Your task to perform on an android device: Go to sound settings Image 0: 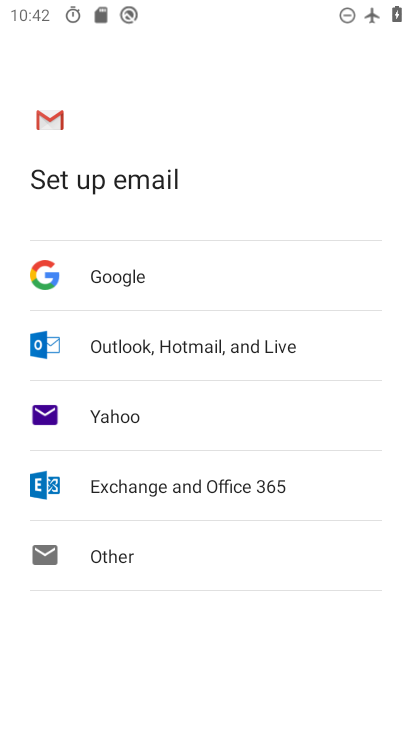
Step 0: press home button
Your task to perform on an android device: Go to sound settings Image 1: 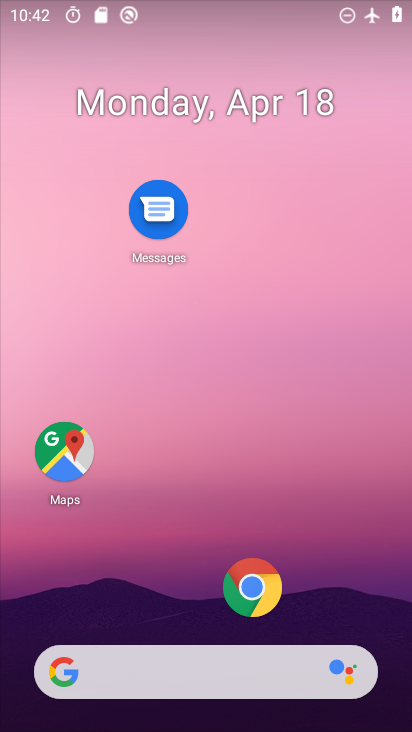
Step 1: drag from (180, 571) to (253, 107)
Your task to perform on an android device: Go to sound settings Image 2: 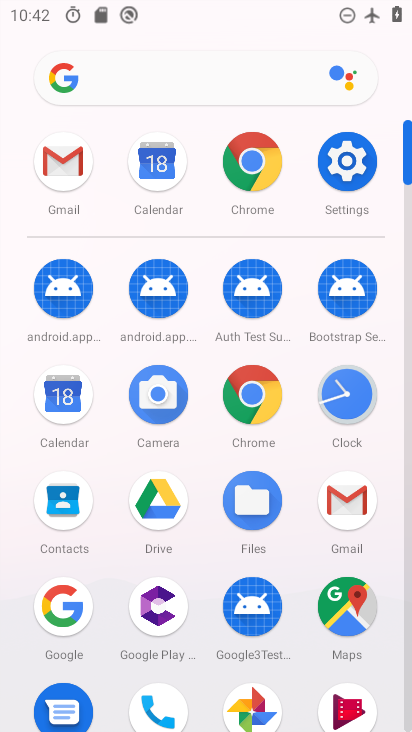
Step 2: click (364, 166)
Your task to perform on an android device: Go to sound settings Image 3: 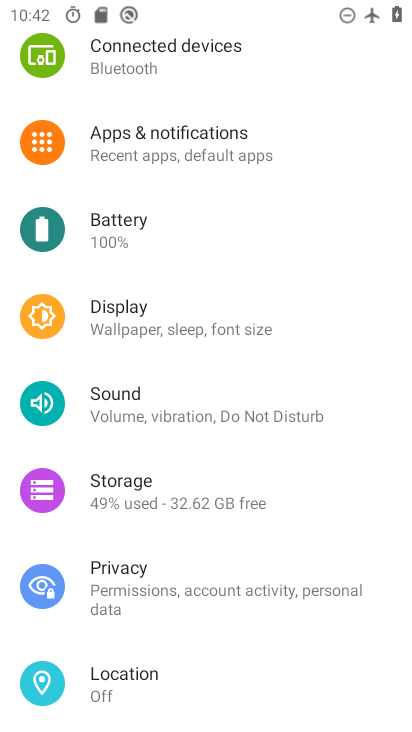
Step 3: click (180, 413)
Your task to perform on an android device: Go to sound settings Image 4: 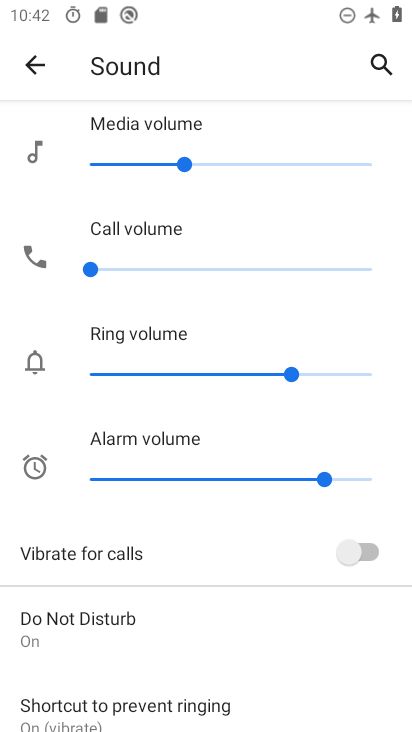
Step 4: task complete